Your task to perform on an android device: Open calendar and show me the second week of next month Image 0: 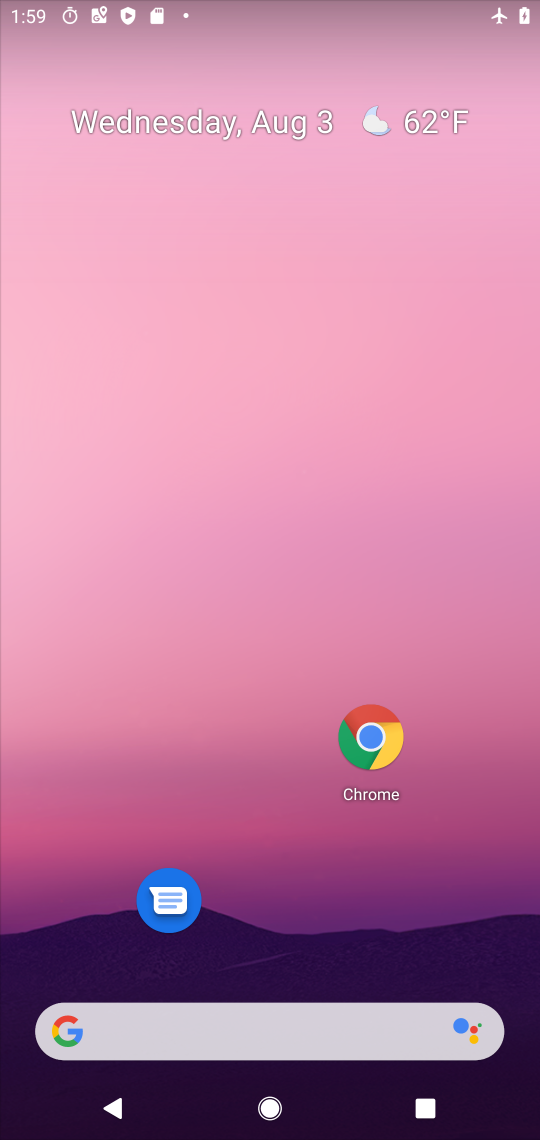
Step 0: drag from (275, 921) to (225, 177)
Your task to perform on an android device: Open calendar and show me the second week of next month Image 1: 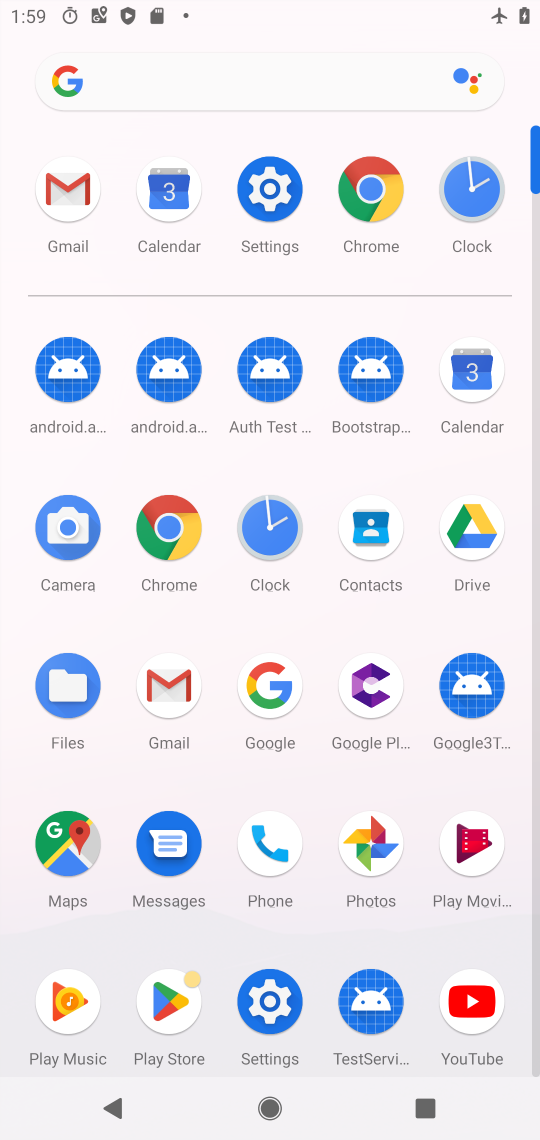
Step 1: click (469, 368)
Your task to perform on an android device: Open calendar and show me the second week of next month Image 2: 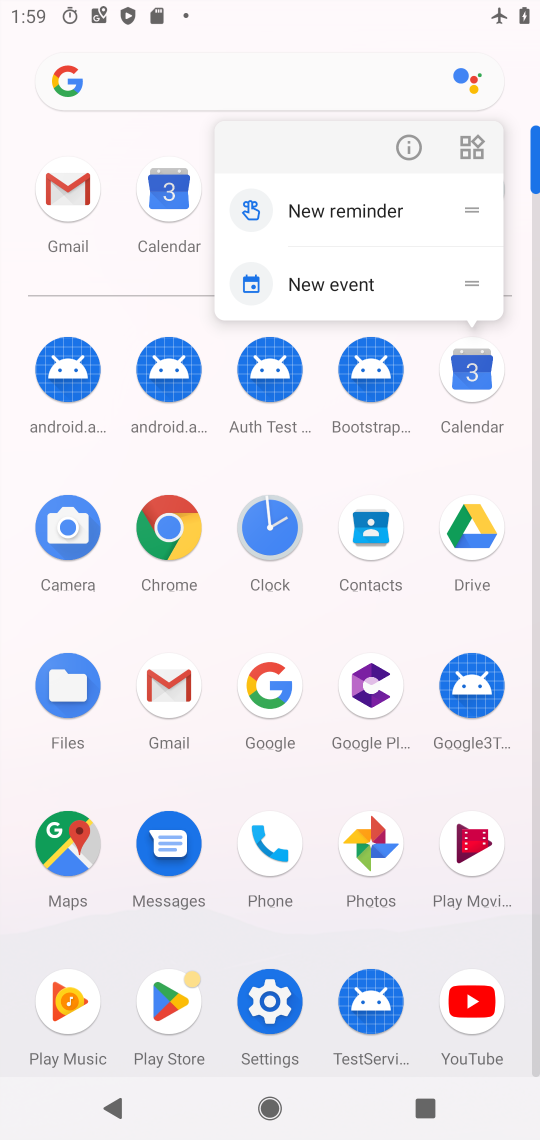
Step 2: click (466, 383)
Your task to perform on an android device: Open calendar and show me the second week of next month Image 3: 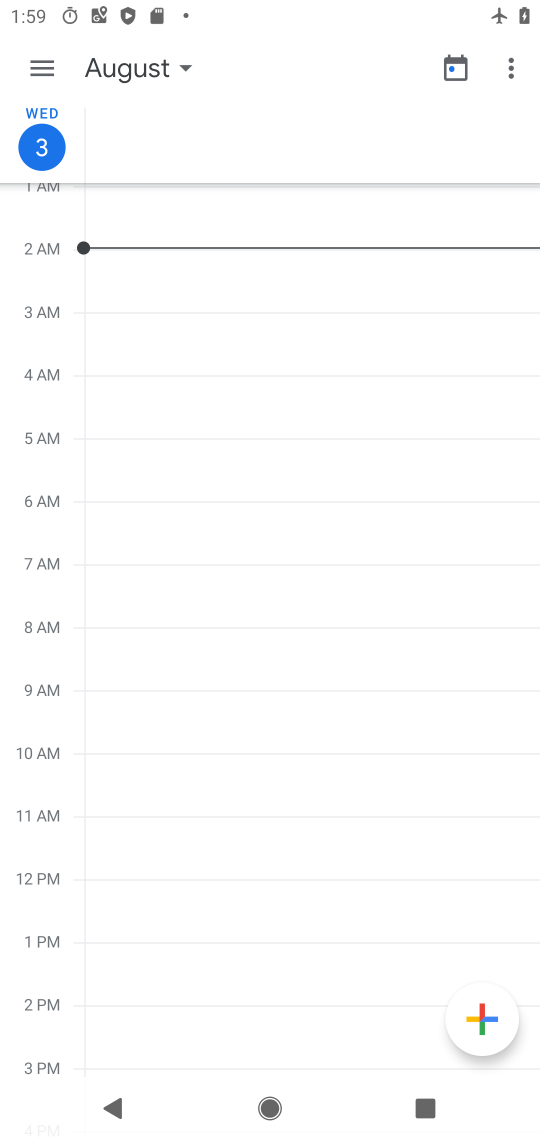
Step 3: click (126, 72)
Your task to perform on an android device: Open calendar and show me the second week of next month Image 4: 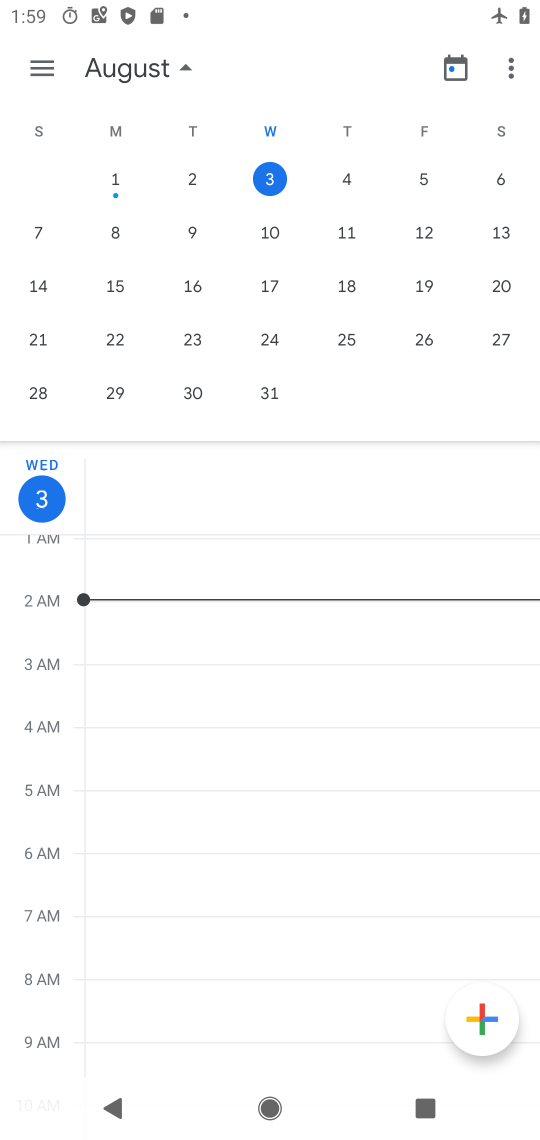
Step 4: drag from (480, 261) to (141, 267)
Your task to perform on an android device: Open calendar and show me the second week of next month Image 5: 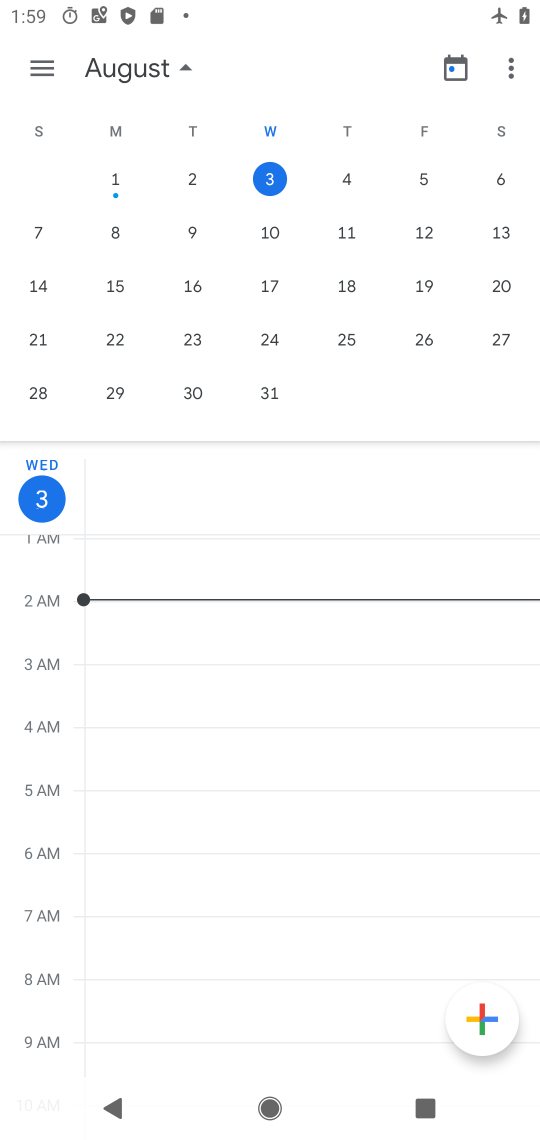
Step 5: drag from (459, 279) to (56, 301)
Your task to perform on an android device: Open calendar and show me the second week of next month Image 6: 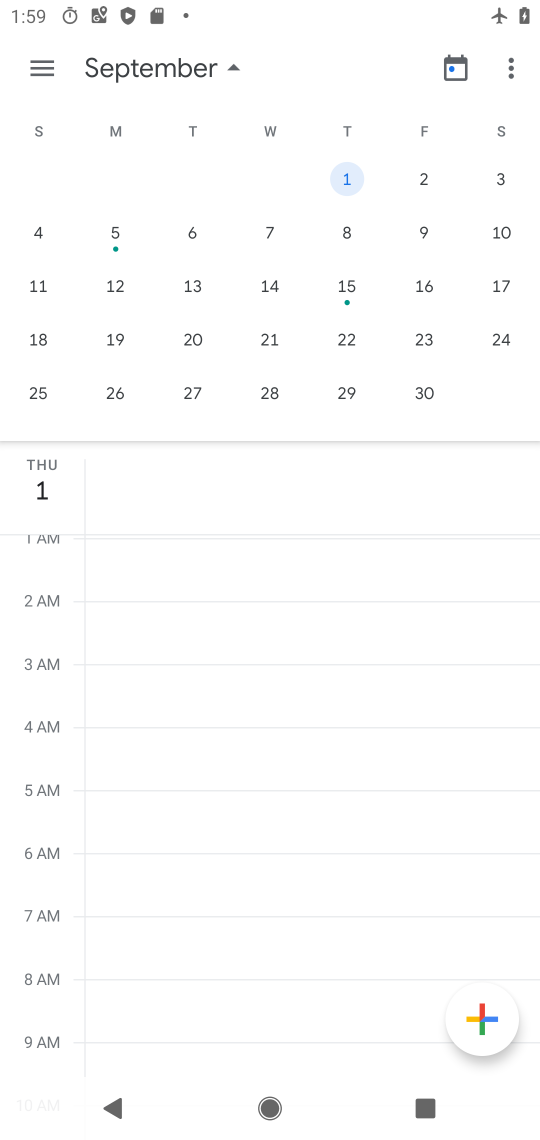
Step 6: click (193, 281)
Your task to perform on an android device: Open calendar and show me the second week of next month Image 7: 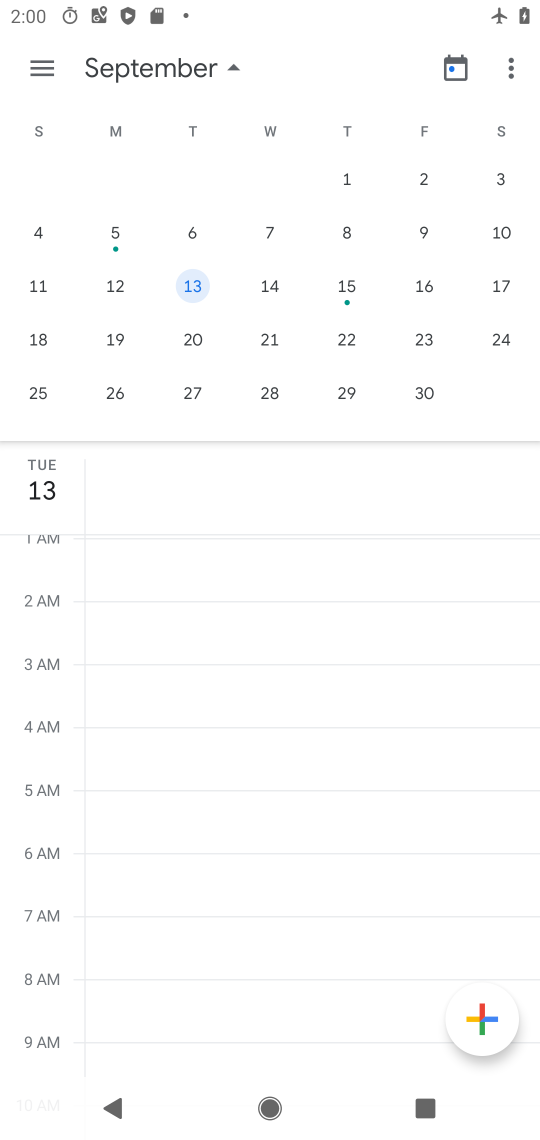
Step 7: click (45, 64)
Your task to perform on an android device: Open calendar and show me the second week of next month Image 8: 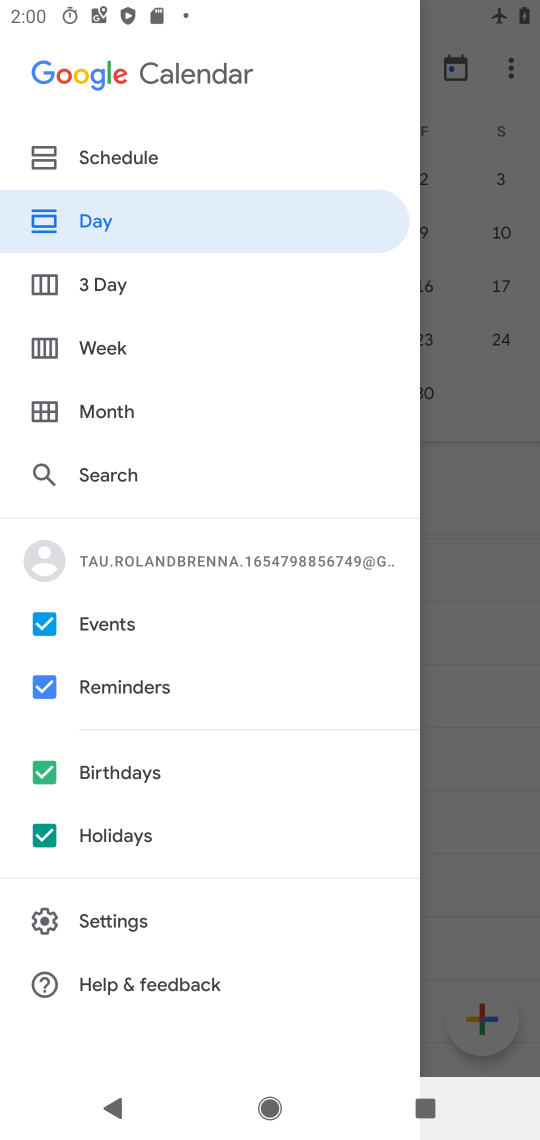
Step 8: click (103, 343)
Your task to perform on an android device: Open calendar and show me the second week of next month Image 9: 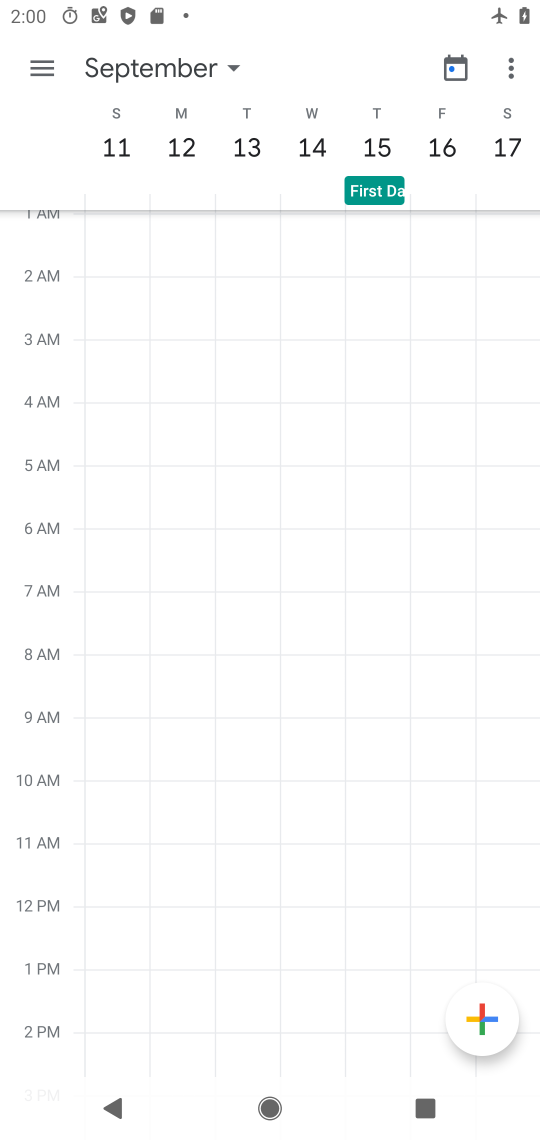
Step 9: task complete